Your task to perform on an android device: set the timer Image 0: 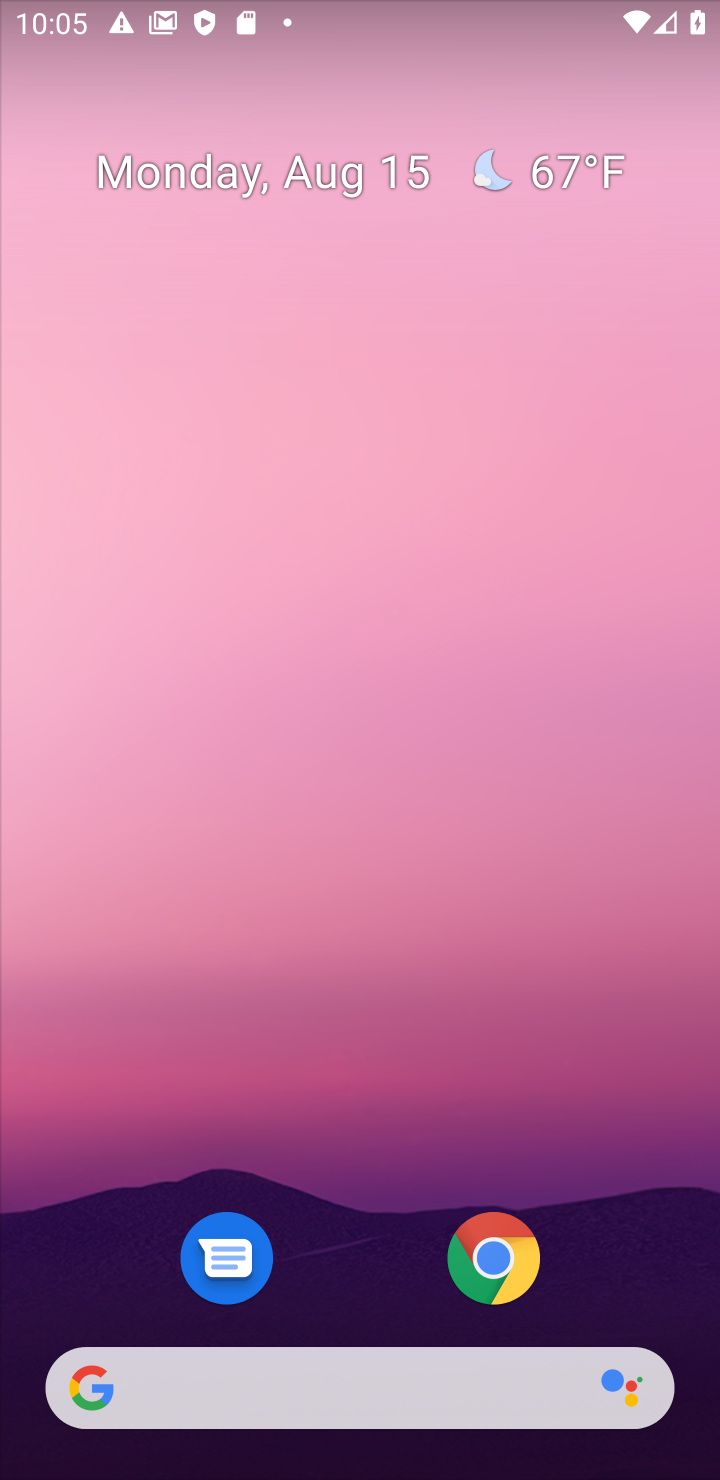
Step 0: drag from (290, 34) to (633, 197)
Your task to perform on an android device: set the timer Image 1: 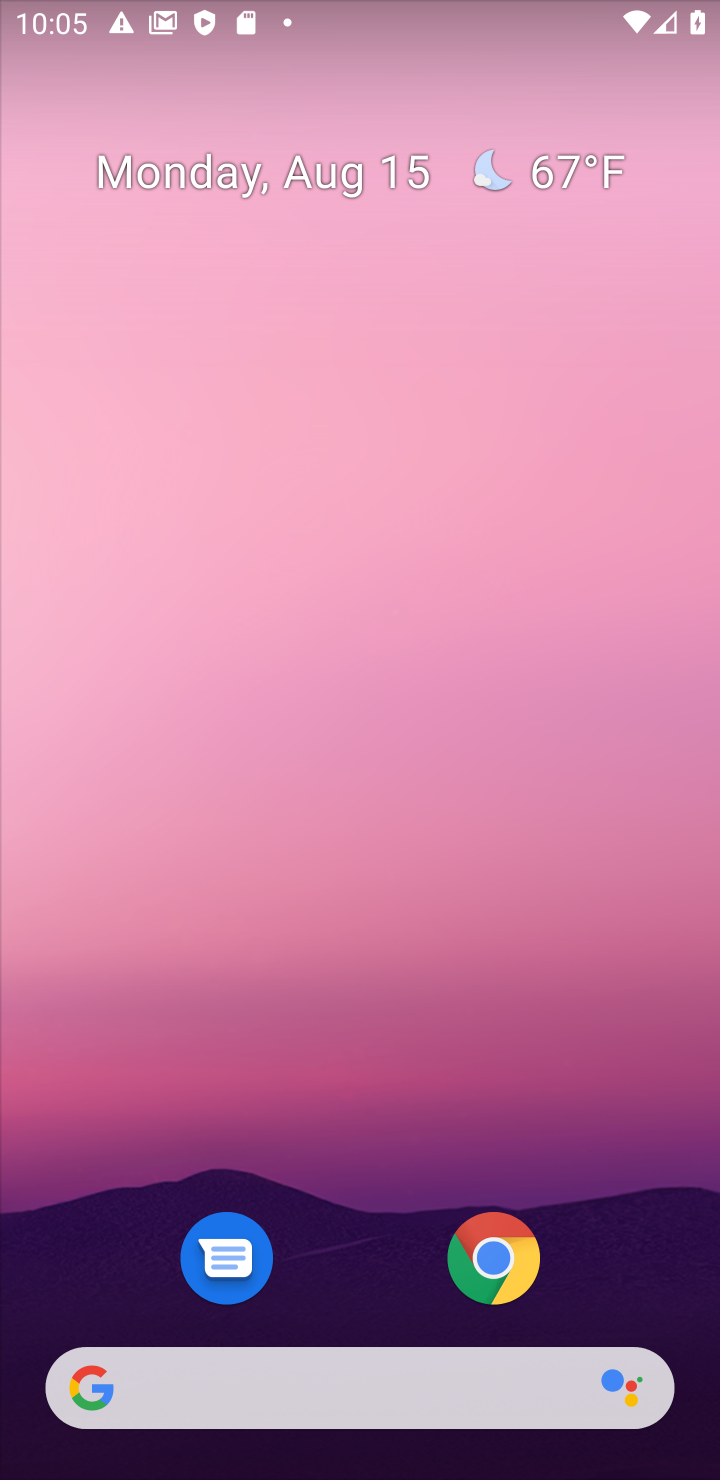
Step 1: drag from (395, 1281) to (541, 24)
Your task to perform on an android device: set the timer Image 2: 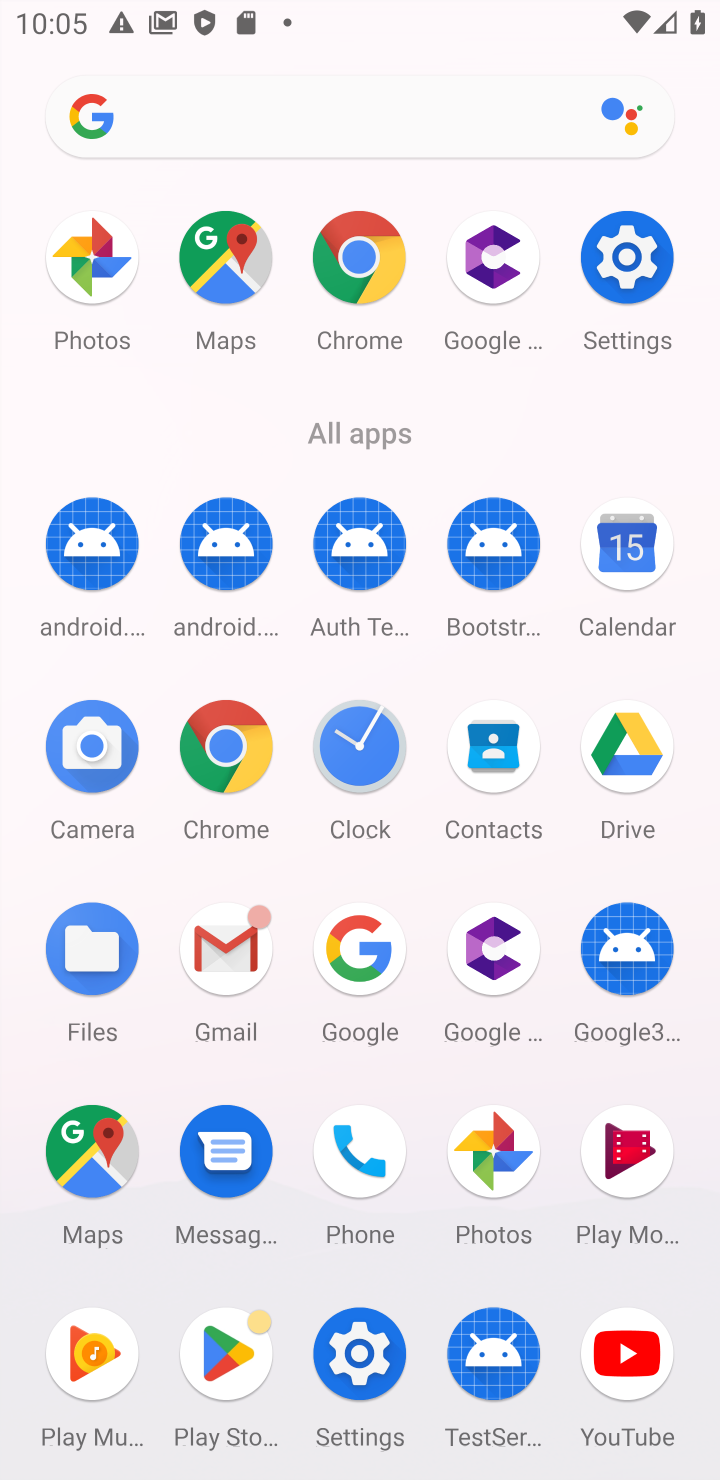
Step 2: click (355, 785)
Your task to perform on an android device: set the timer Image 3: 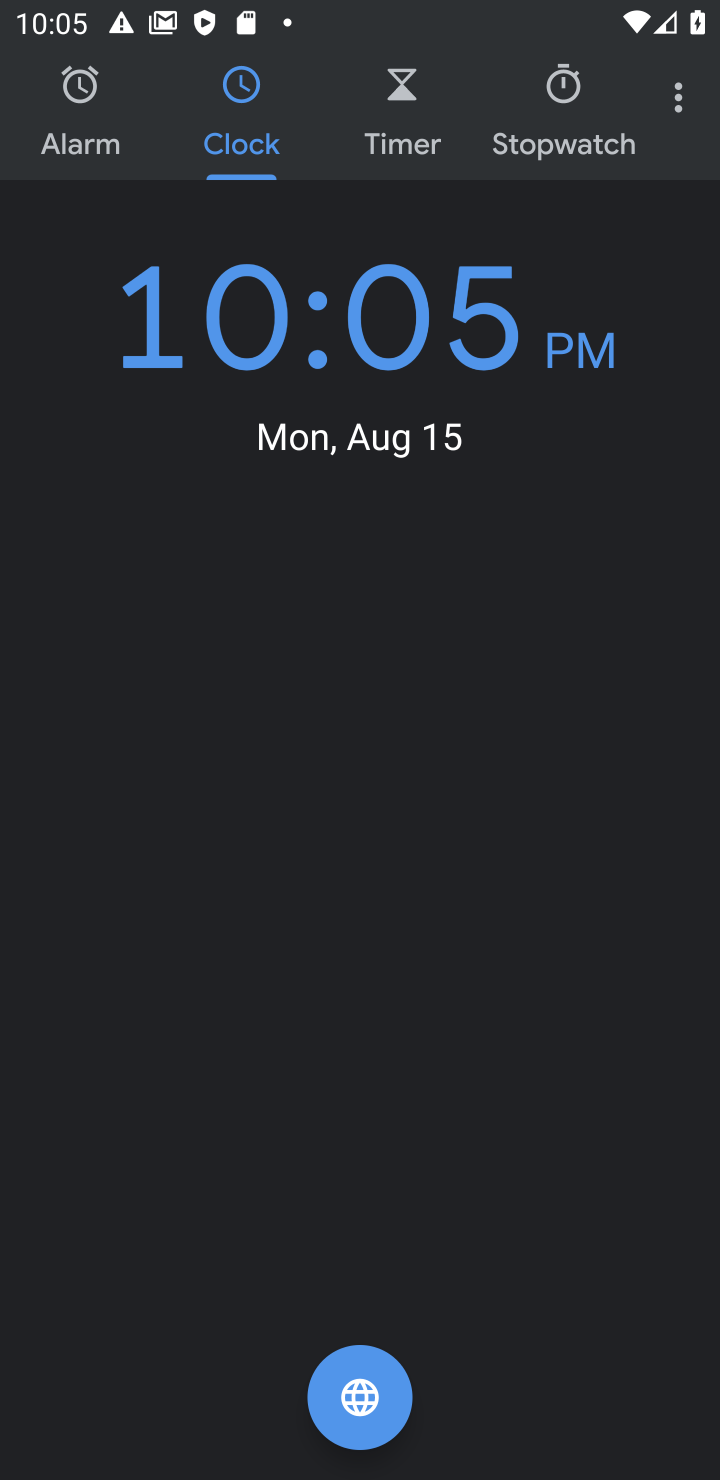
Step 3: click (429, 129)
Your task to perform on an android device: set the timer Image 4: 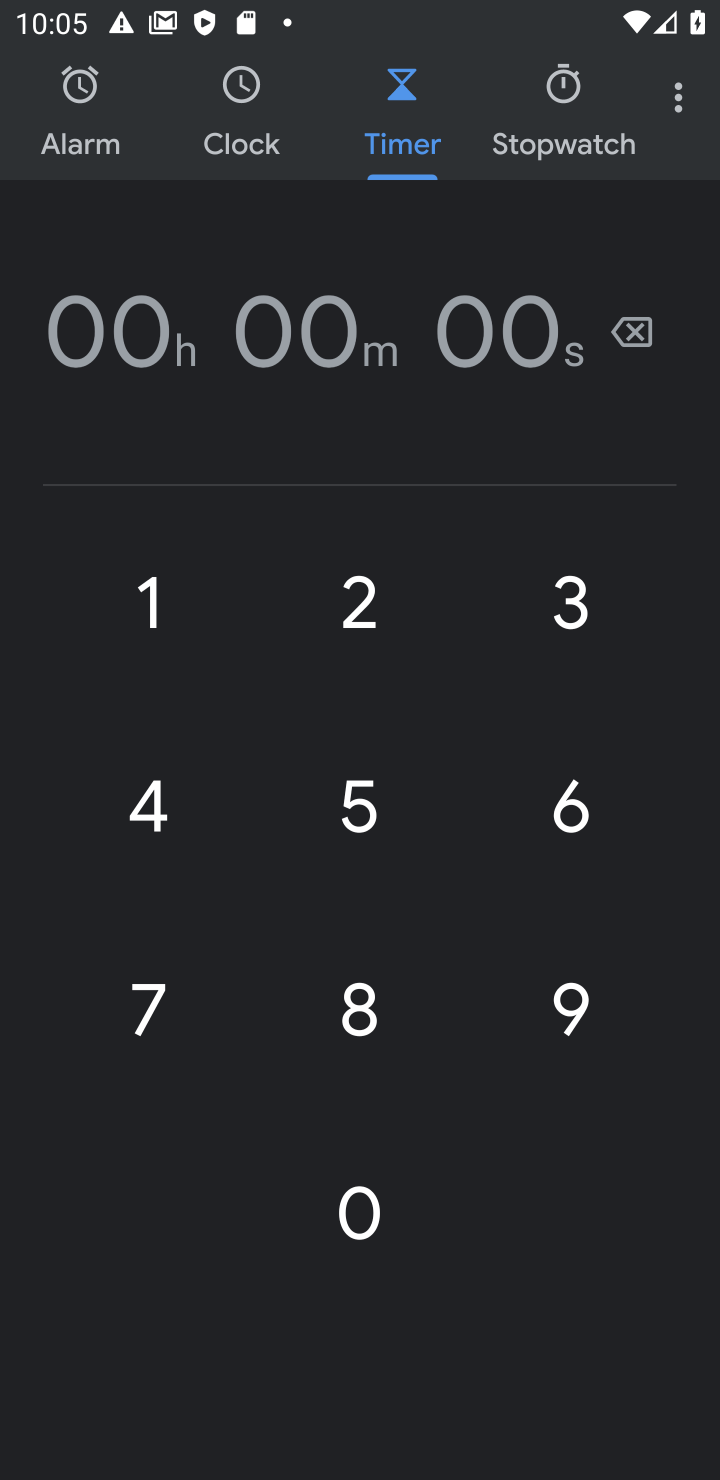
Step 4: click (148, 1007)
Your task to perform on an android device: set the timer Image 5: 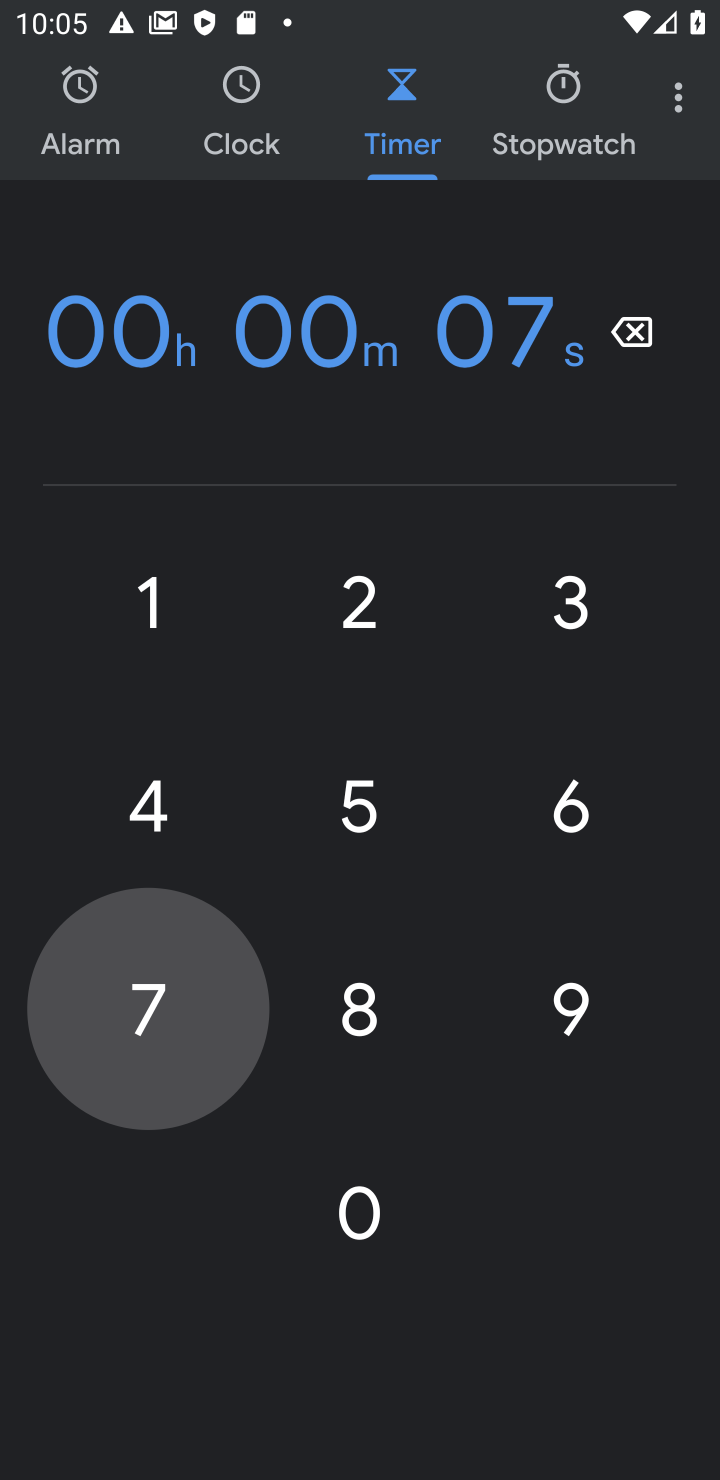
Step 5: click (378, 812)
Your task to perform on an android device: set the timer Image 6: 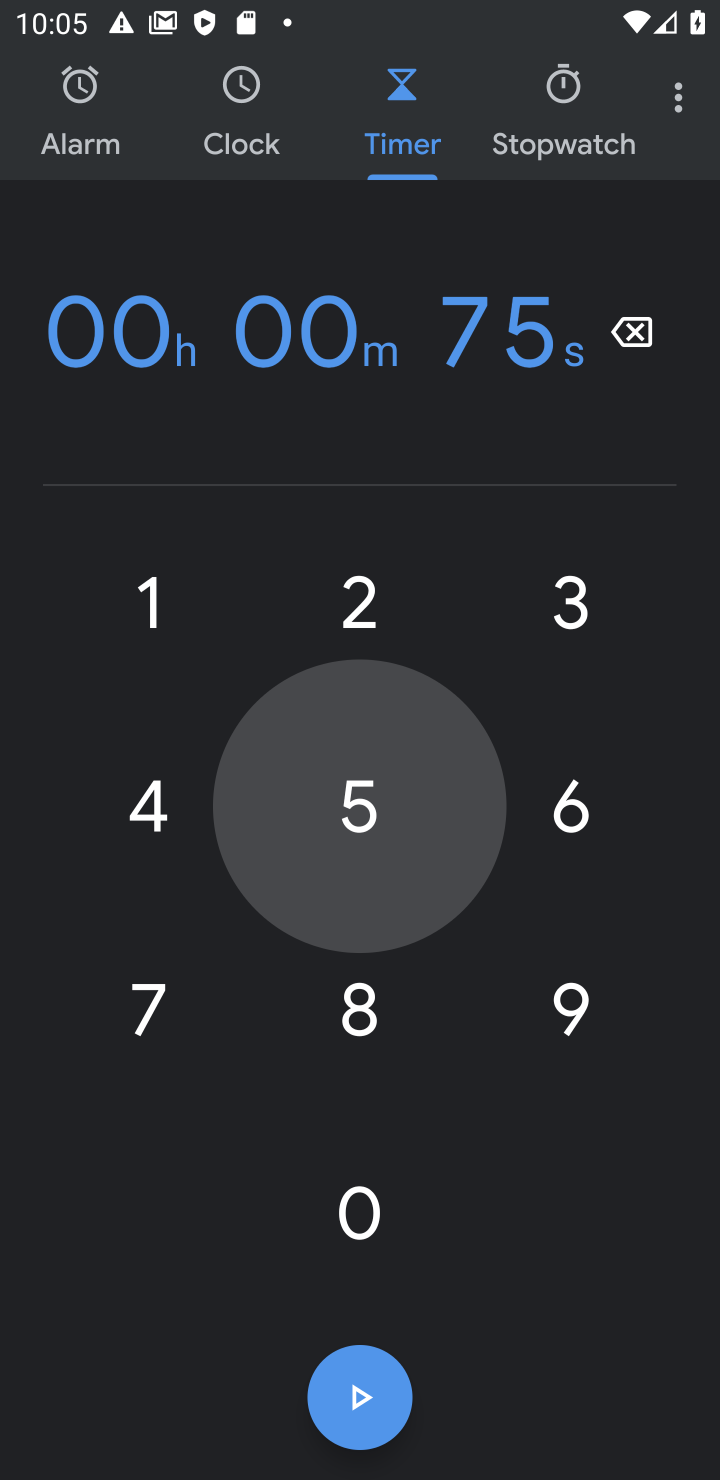
Step 6: click (577, 1017)
Your task to perform on an android device: set the timer Image 7: 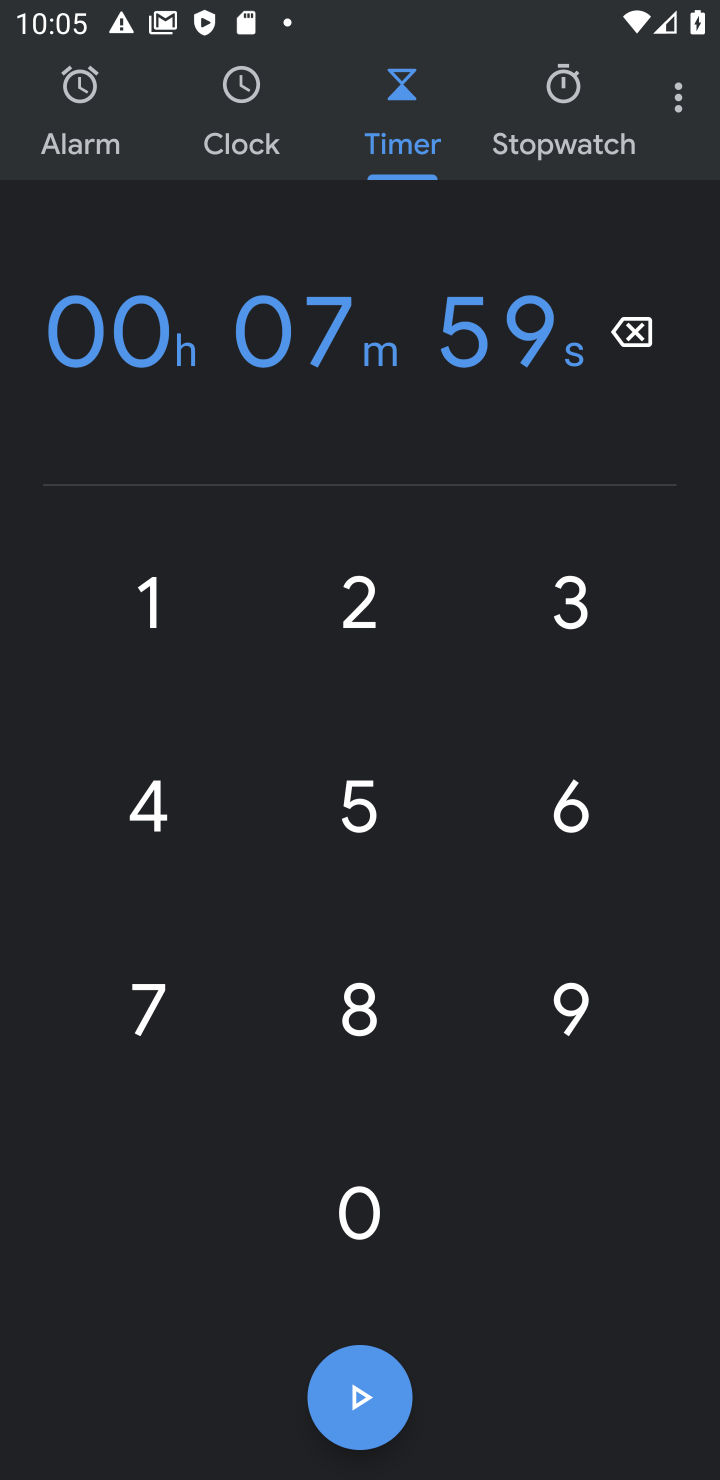
Step 7: click (350, 1410)
Your task to perform on an android device: set the timer Image 8: 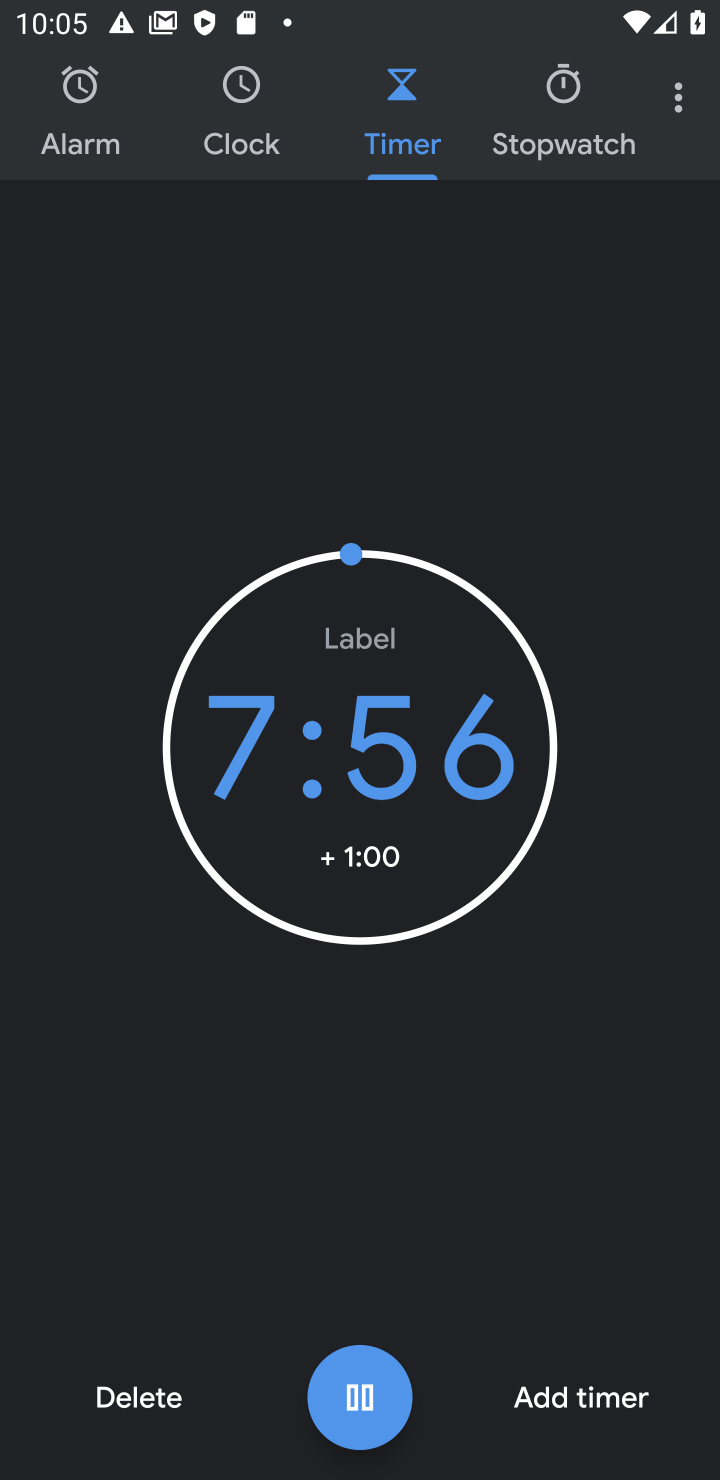
Step 8: task complete